Your task to perform on an android device: Open Yahoo.com Image 0: 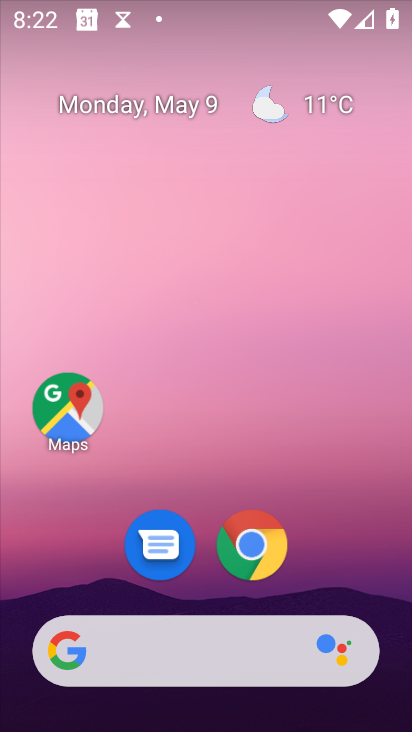
Step 0: click (247, 542)
Your task to perform on an android device: Open Yahoo.com Image 1: 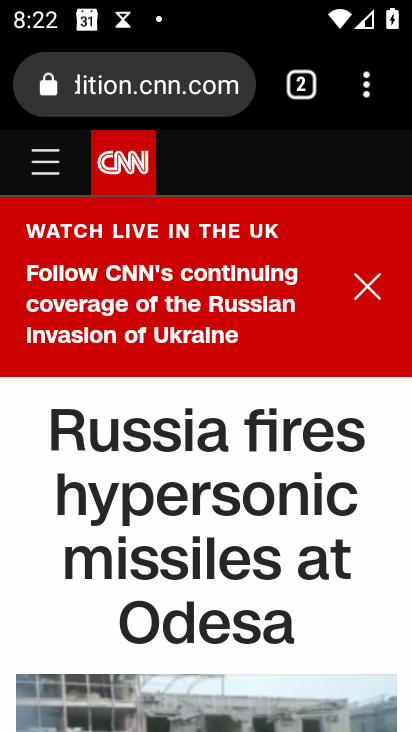
Step 1: click (369, 98)
Your task to perform on an android device: Open Yahoo.com Image 2: 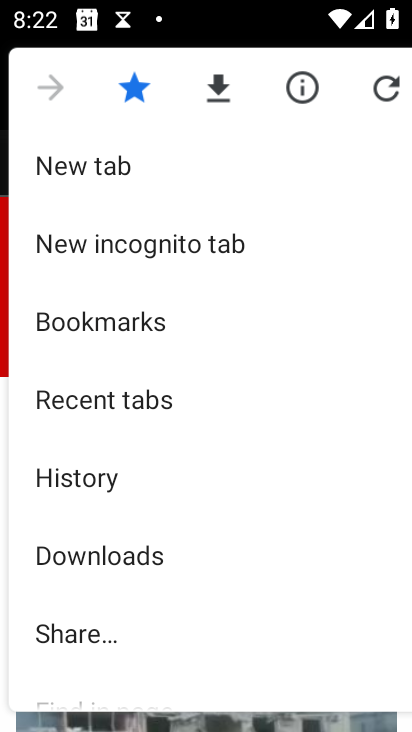
Step 2: click (97, 162)
Your task to perform on an android device: Open Yahoo.com Image 3: 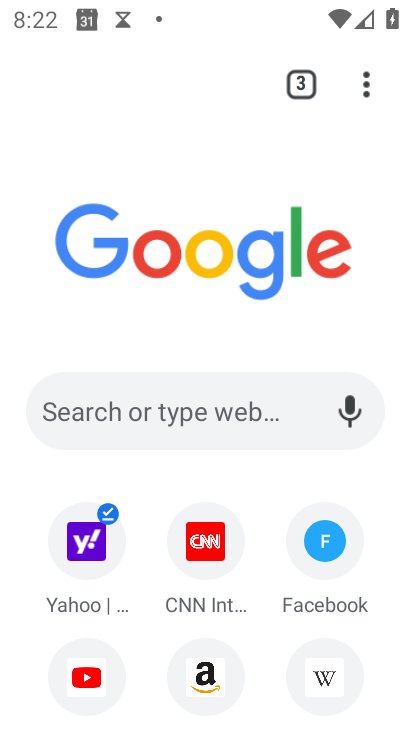
Step 3: click (186, 405)
Your task to perform on an android device: Open Yahoo.com Image 4: 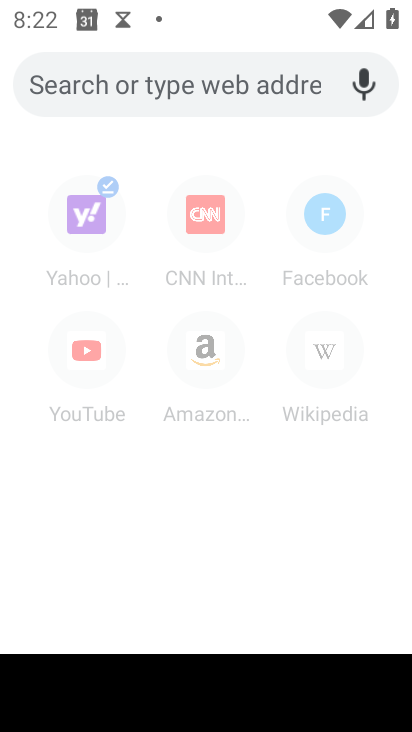
Step 4: type "Yahoo.com"
Your task to perform on an android device: Open Yahoo.com Image 5: 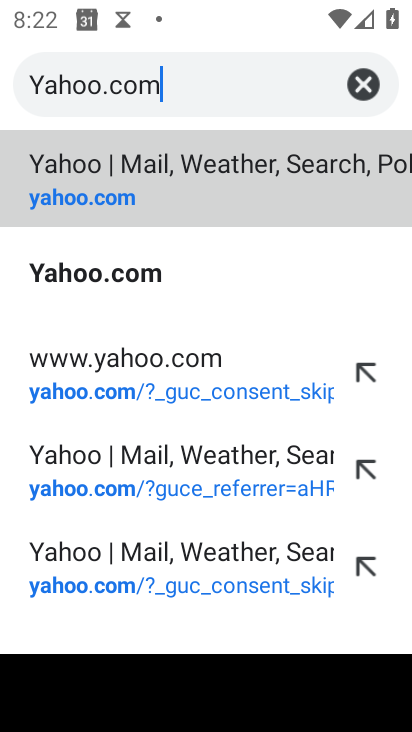
Step 5: click (139, 175)
Your task to perform on an android device: Open Yahoo.com Image 6: 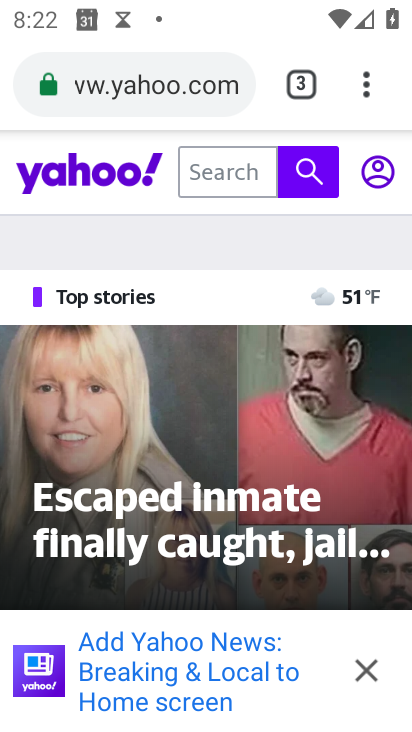
Step 6: task complete